Your task to perform on an android device: What's the weather today? Image 0: 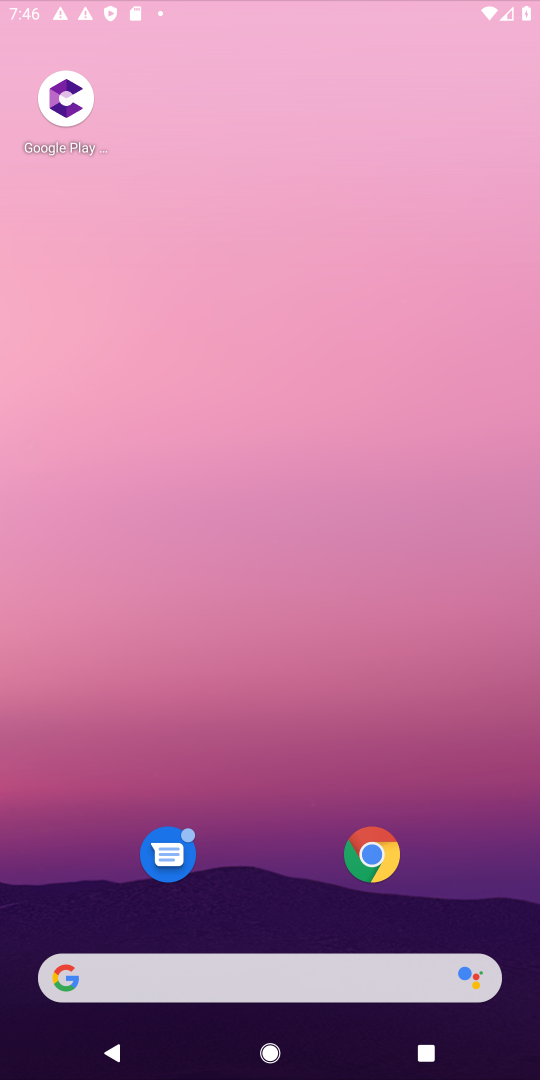
Step 0: press home button
Your task to perform on an android device: What's the weather today? Image 1: 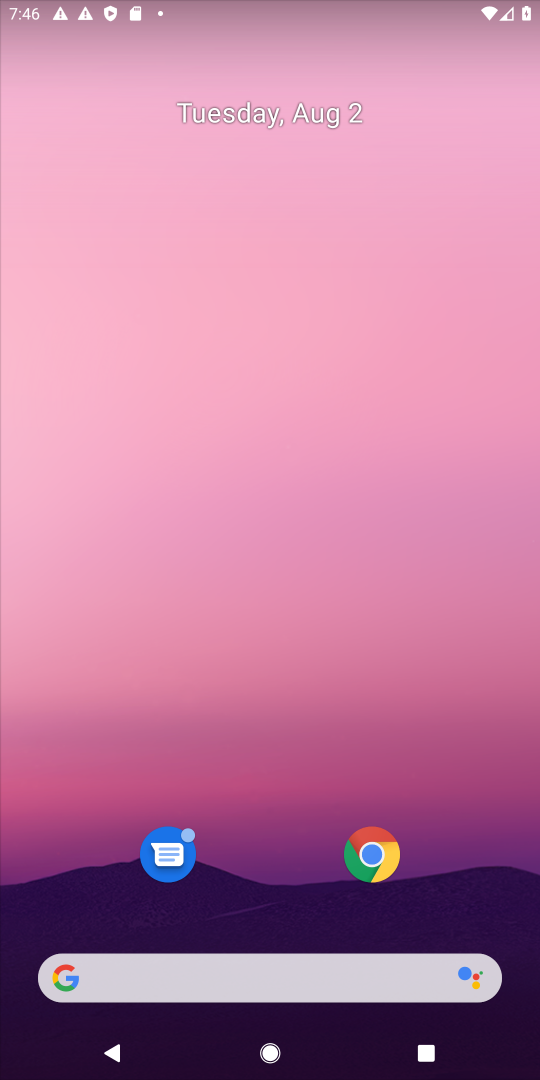
Step 1: click (291, 983)
Your task to perform on an android device: What's the weather today? Image 2: 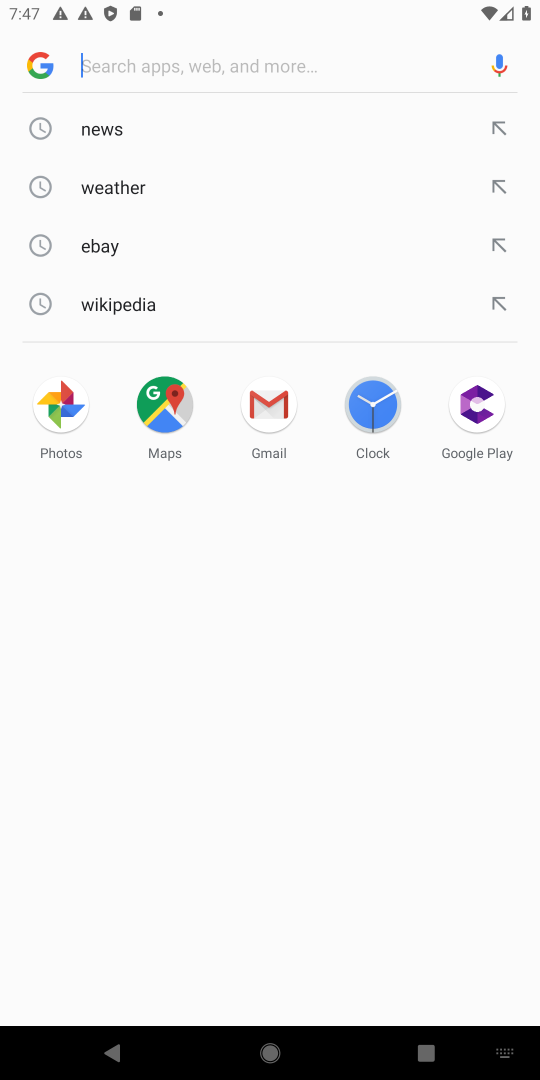
Step 2: click (142, 182)
Your task to perform on an android device: What's the weather today? Image 3: 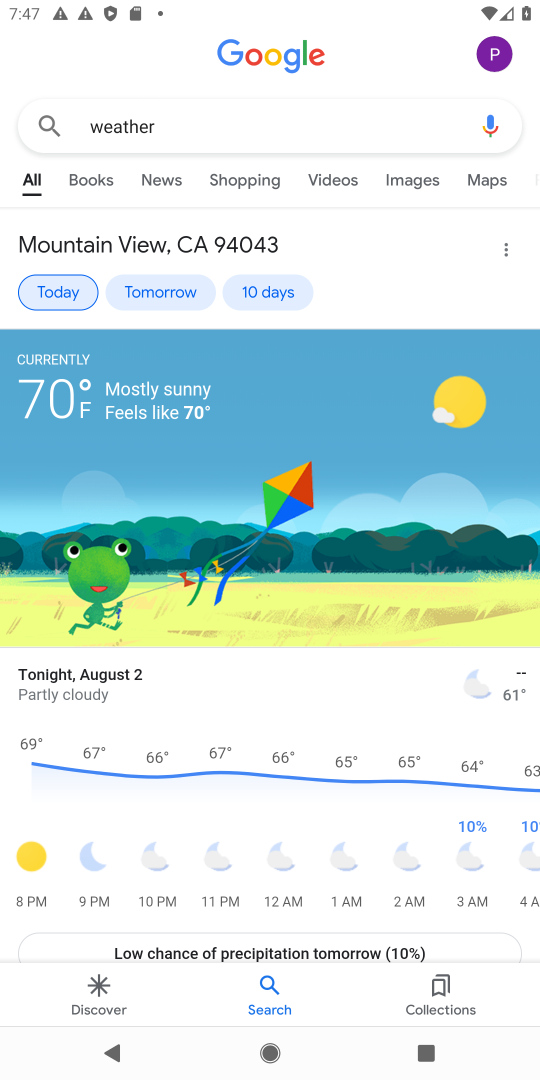
Step 3: task complete